Your task to perform on an android device: Open calendar and show me the third week of next month Image 0: 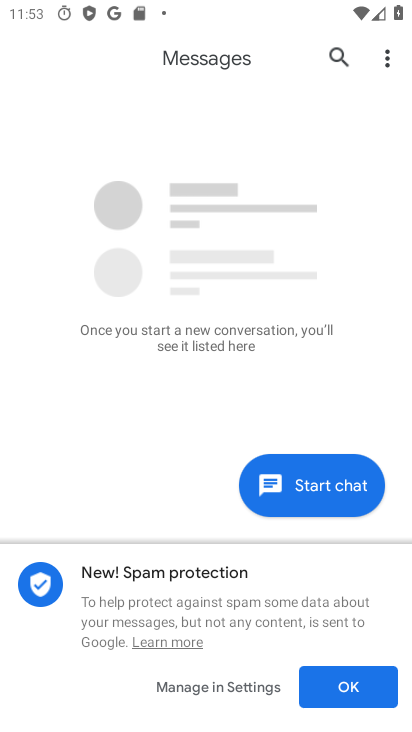
Step 0: press home button
Your task to perform on an android device: Open calendar and show me the third week of next month Image 1: 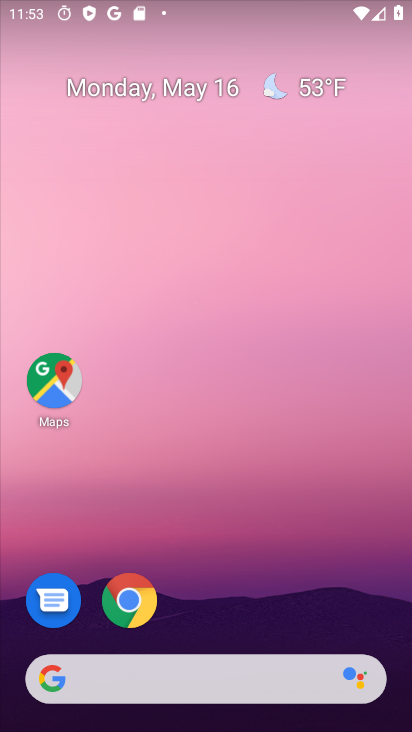
Step 1: drag from (263, 630) to (215, 69)
Your task to perform on an android device: Open calendar and show me the third week of next month Image 2: 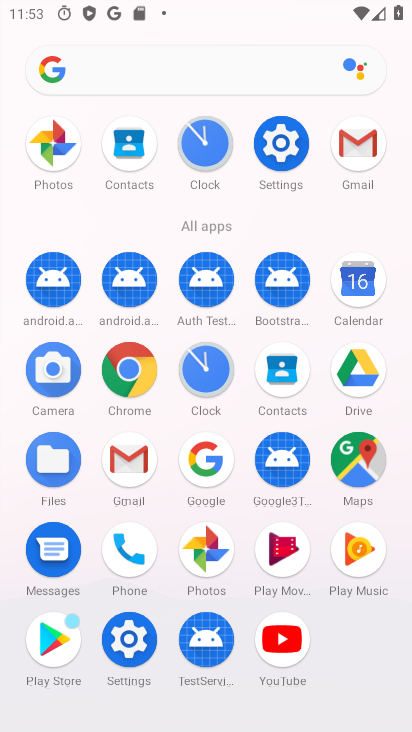
Step 2: click (352, 291)
Your task to perform on an android device: Open calendar and show me the third week of next month Image 3: 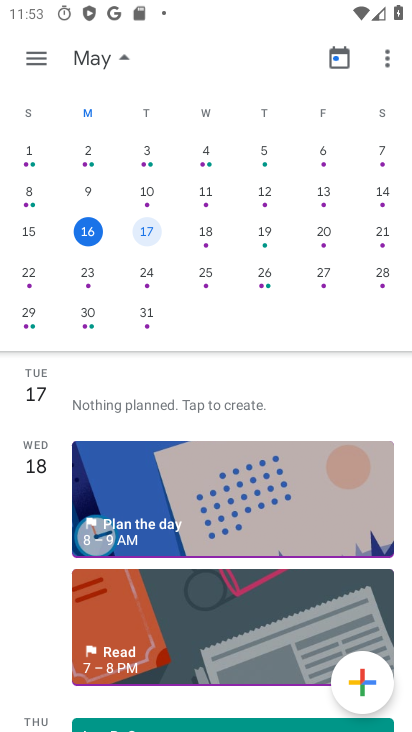
Step 3: drag from (394, 199) to (90, 216)
Your task to perform on an android device: Open calendar and show me the third week of next month Image 4: 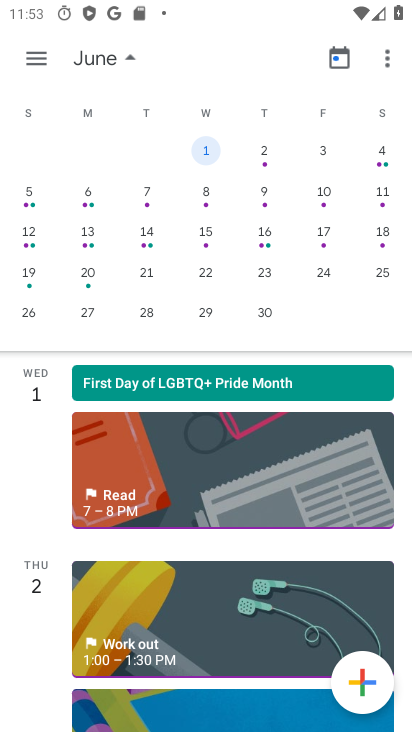
Step 4: click (31, 232)
Your task to perform on an android device: Open calendar and show me the third week of next month Image 5: 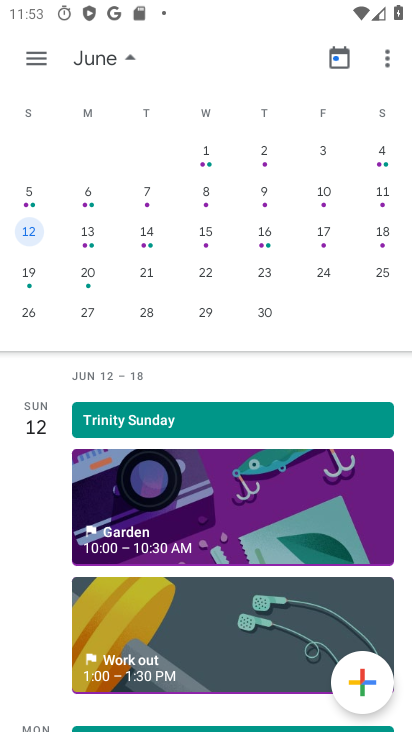
Step 5: task complete